Your task to perform on an android device: stop showing notifications on the lock screen Image 0: 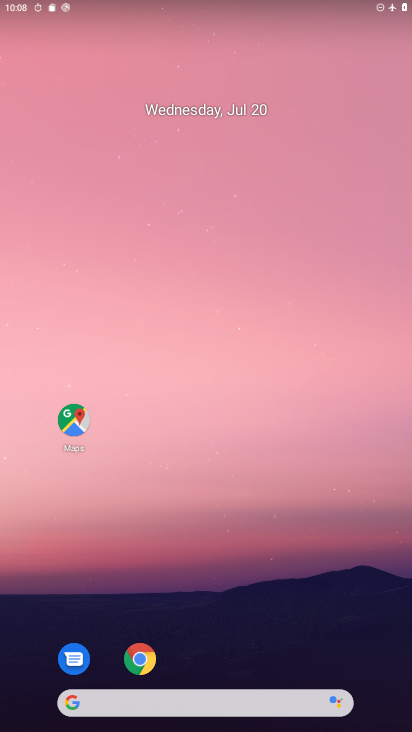
Step 0: drag from (255, 641) to (313, 47)
Your task to perform on an android device: stop showing notifications on the lock screen Image 1: 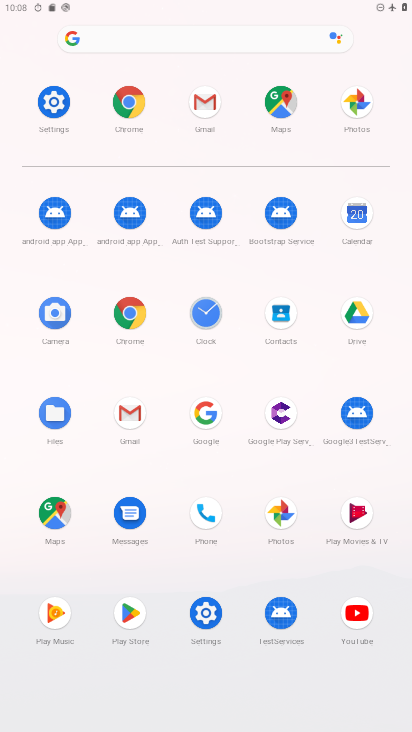
Step 1: click (62, 96)
Your task to perform on an android device: stop showing notifications on the lock screen Image 2: 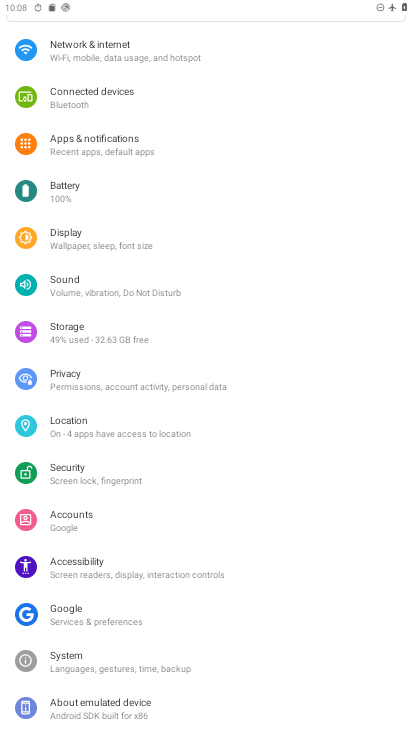
Step 2: click (121, 152)
Your task to perform on an android device: stop showing notifications on the lock screen Image 3: 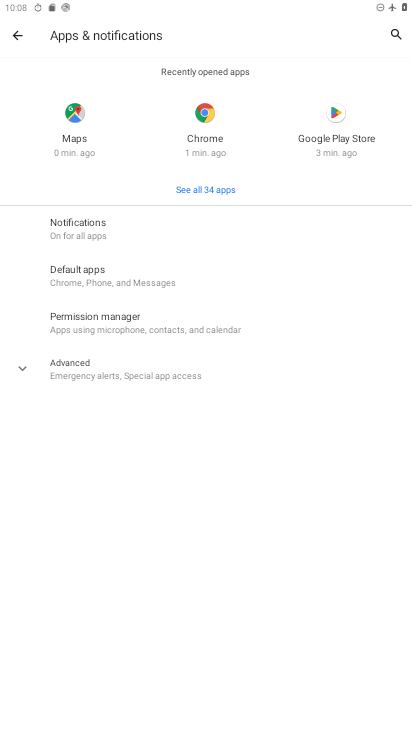
Step 3: click (78, 226)
Your task to perform on an android device: stop showing notifications on the lock screen Image 4: 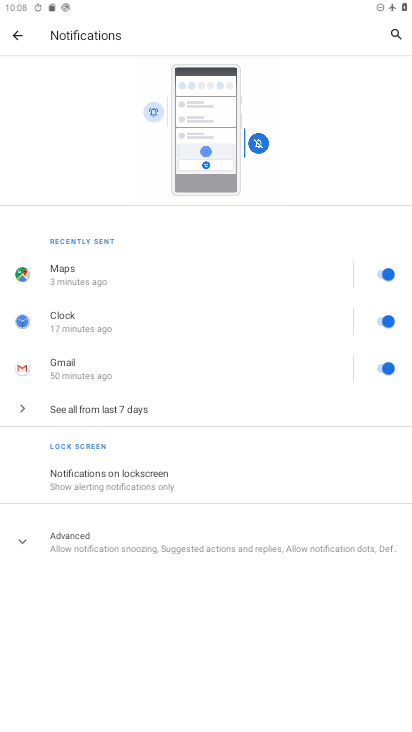
Step 4: click (110, 467)
Your task to perform on an android device: stop showing notifications on the lock screen Image 5: 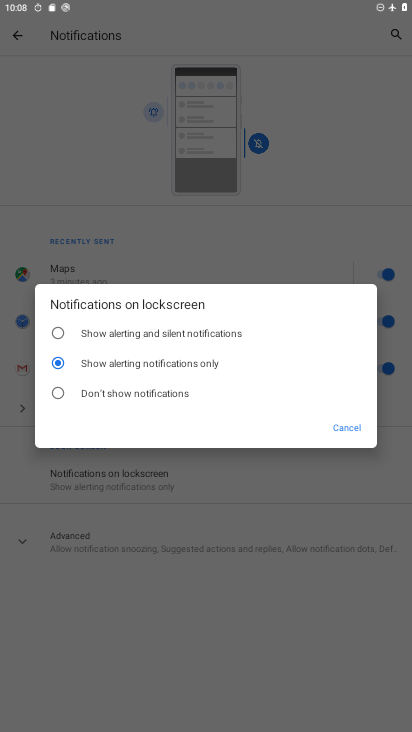
Step 5: click (173, 384)
Your task to perform on an android device: stop showing notifications on the lock screen Image 6: 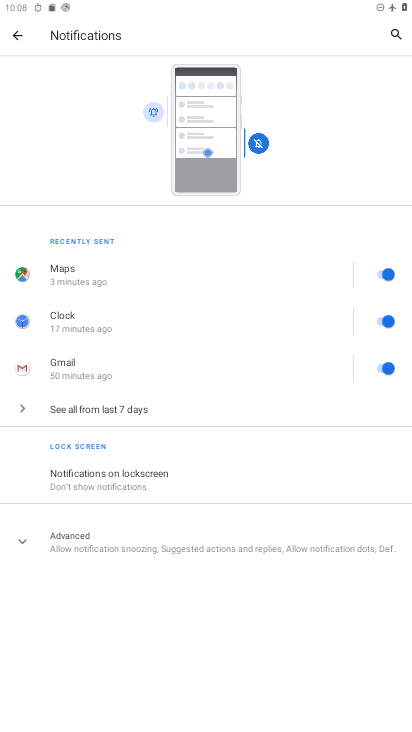
Step 6: task complete